Your task to perform on an android device: Open Google Image 0: 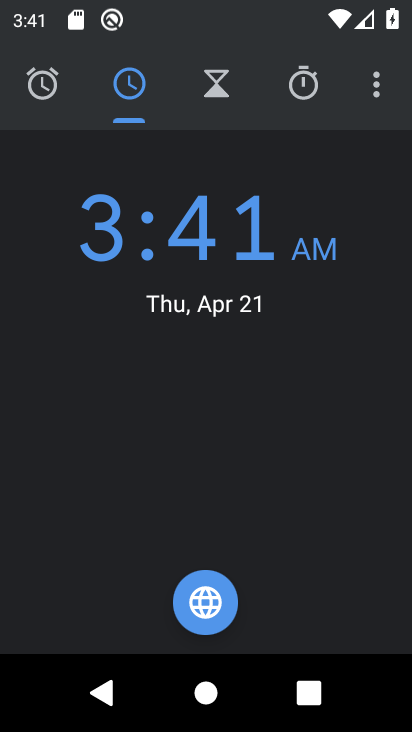
Step 0: press home button
Your task to perform on an android device: Open Google Image 1: 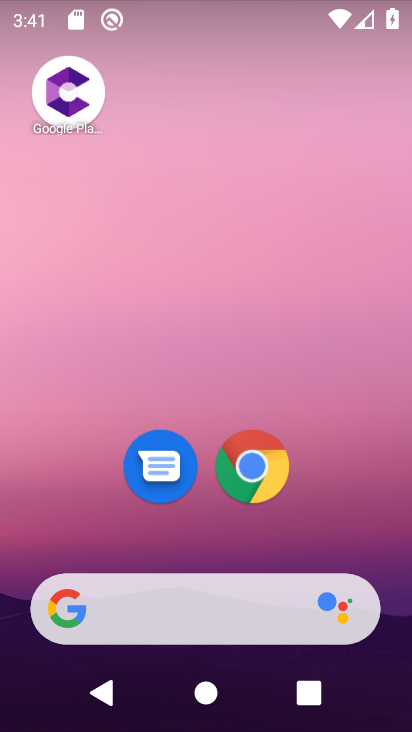
Step 1: drag from (221, 512) to (306, 32)
Your task to perform on an android device: Open Google Image 2: 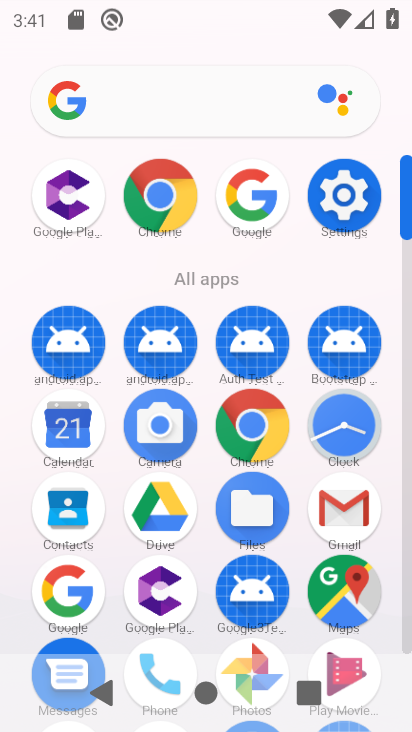
Step 2: click (245, 196)
Your task to perform on an android device: Open Google Image 3: 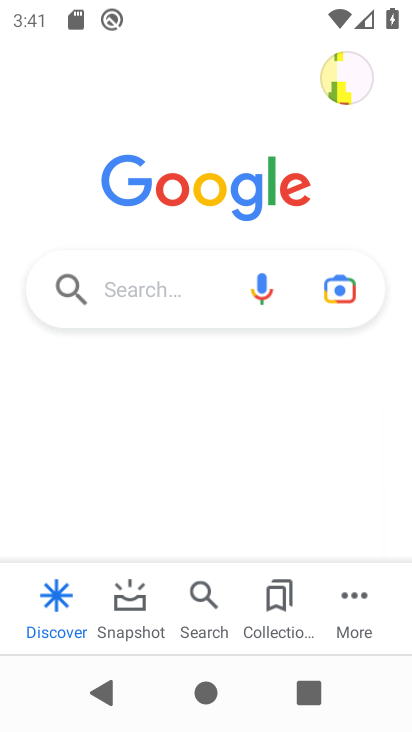
Step 3: task complete